Your task to perform on an android device: toggle translation in the chrome app Image 0: 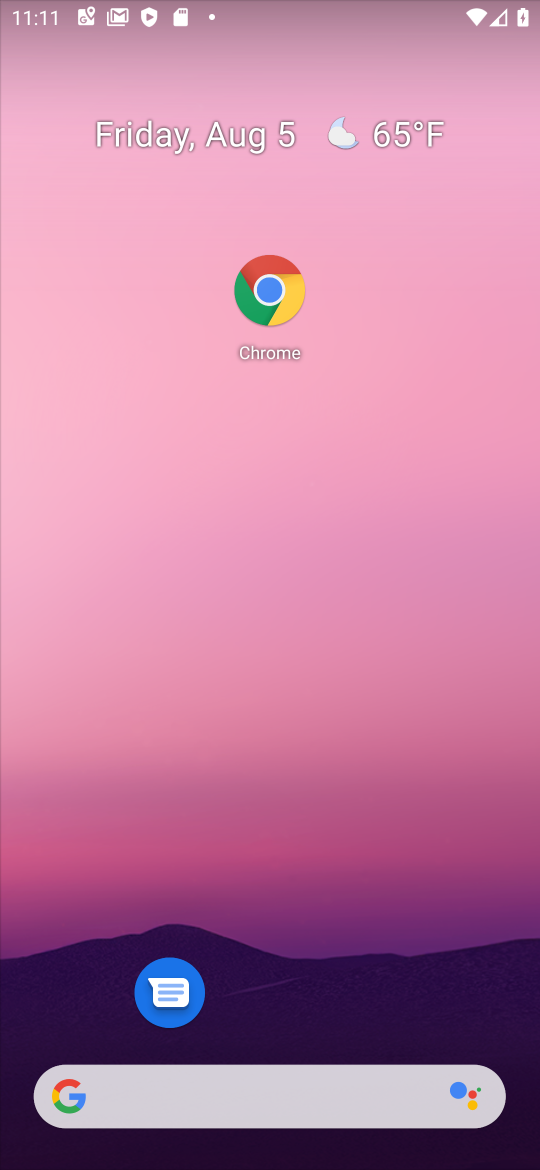
Step 0: drag from (113, 863) to (29, 37)
Your task to perform on an android device: toggle translation in the chrome app Image 1: 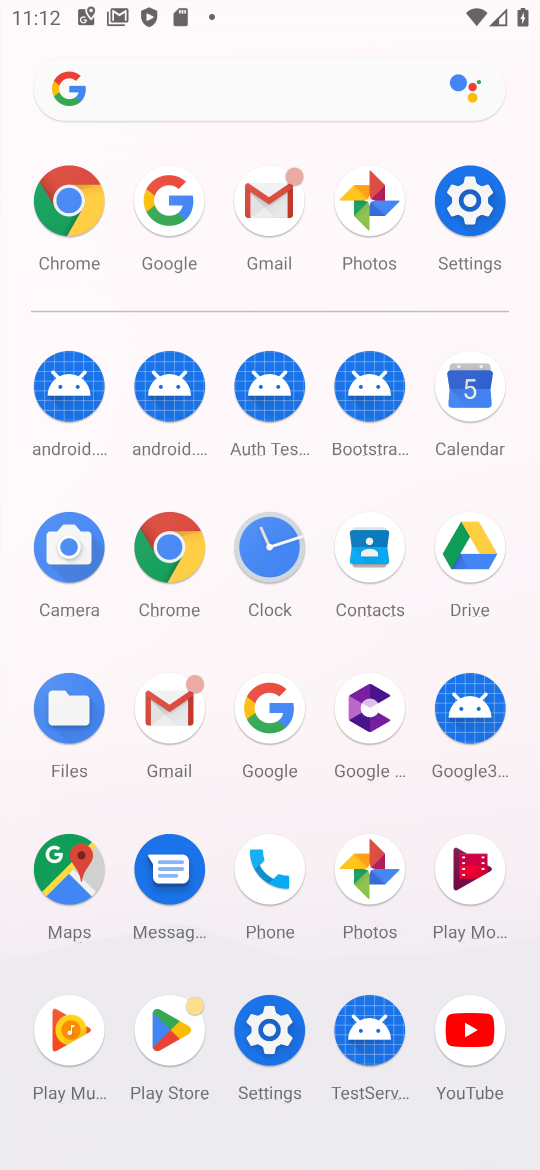
Step 1: click (57, 212)
Your task to perform on an android device: toggle translation in the chrome app Image 2: 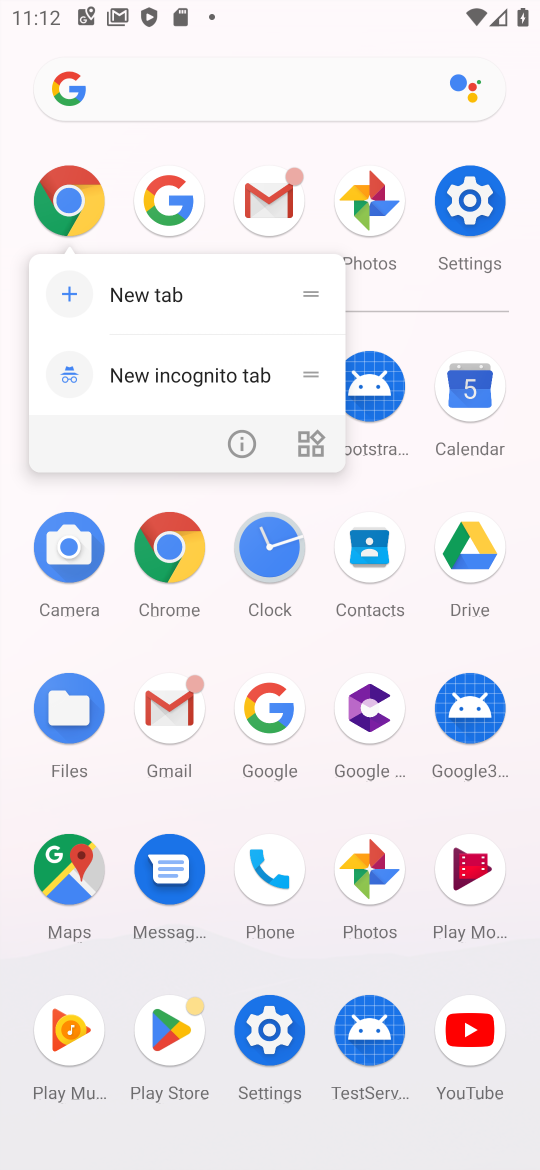
Step 2: click (53, 209)
Your task to perform on an android device: toggle translation in the chrome app Image 3: 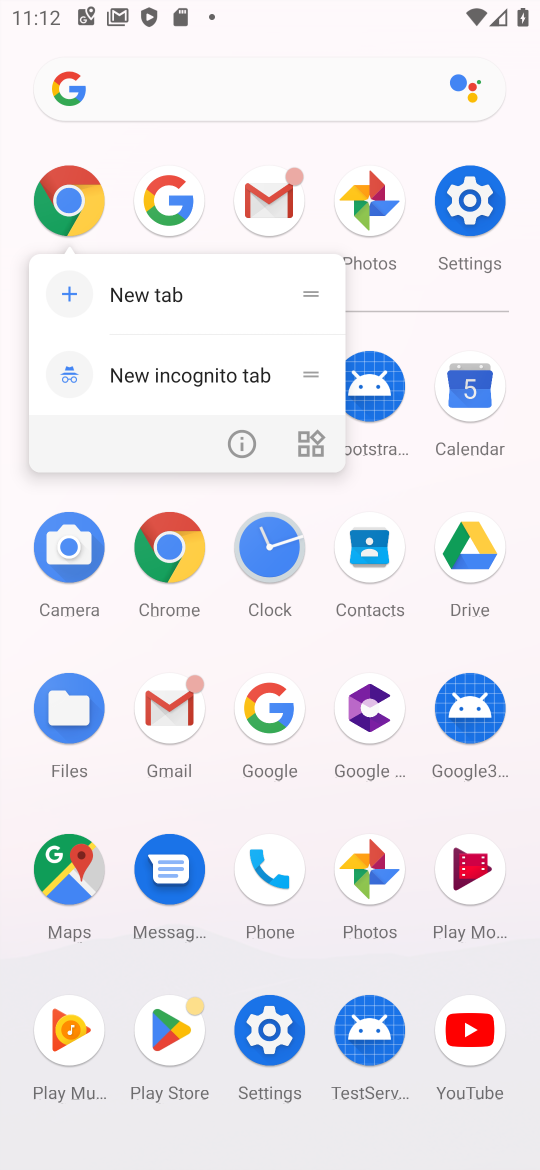
Step 3: click (53, 209)
Your task to perform on an android device: toggle translation in the chrome app Image 4: 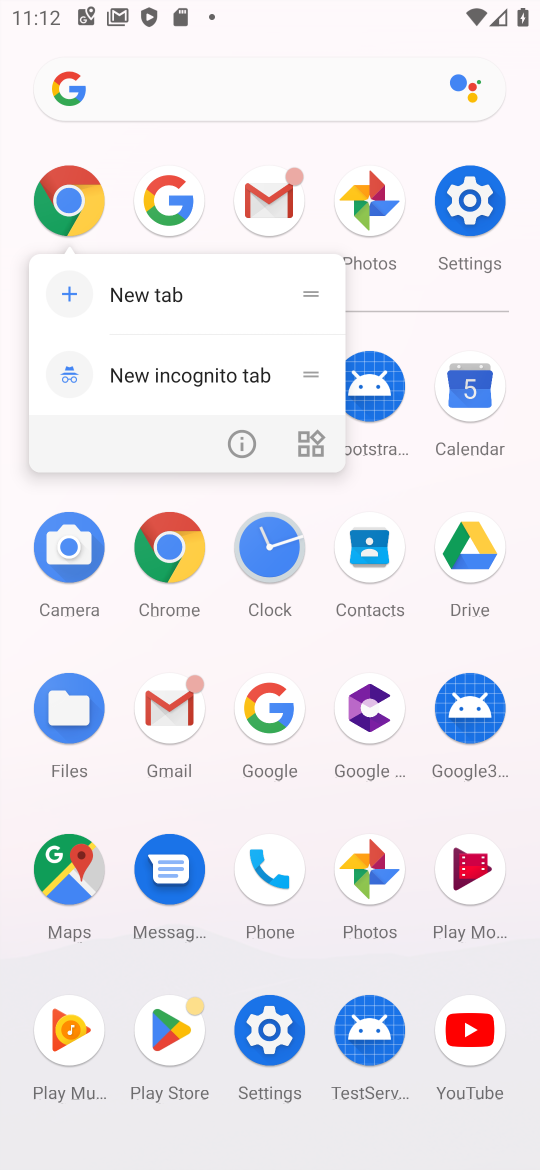
Step 4: click (53, 209)
Your task to perform on an android device: toggle translation in the chrome app Image 5: 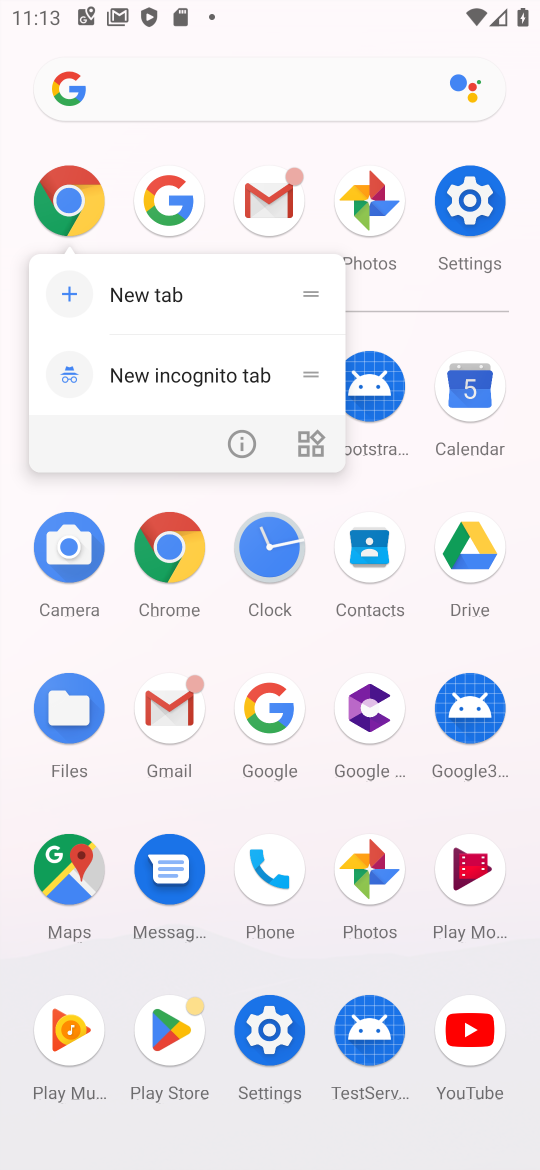
Step 5: click (51, 209)
Your task to perform on an android device: toggle translation in the chrome app Image 6: 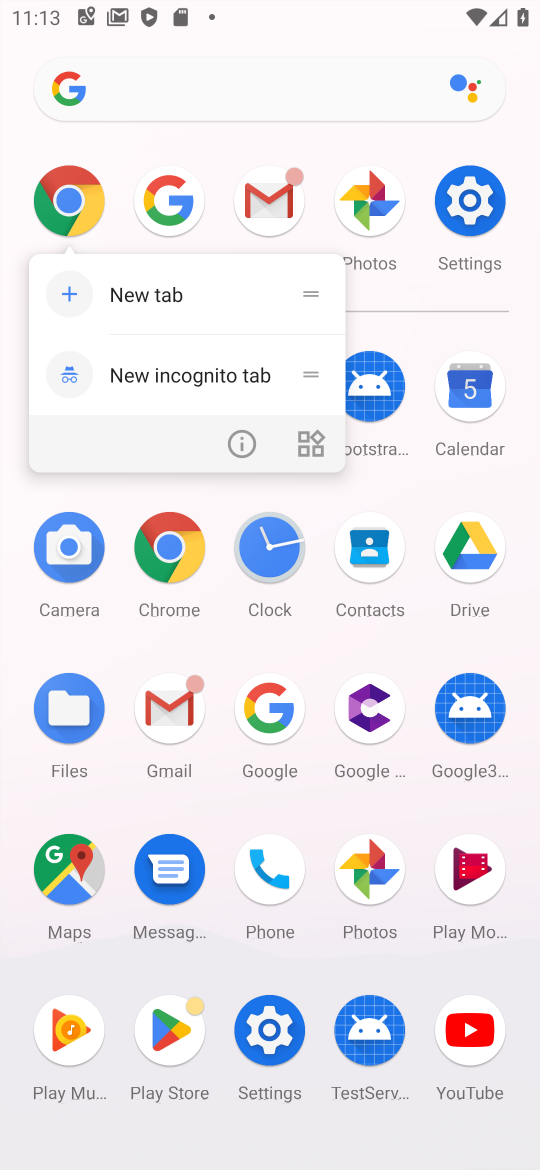
Step 6: click (51, 209)
Your task to perform on an android device: toggle translation in the chrome app Image 7: 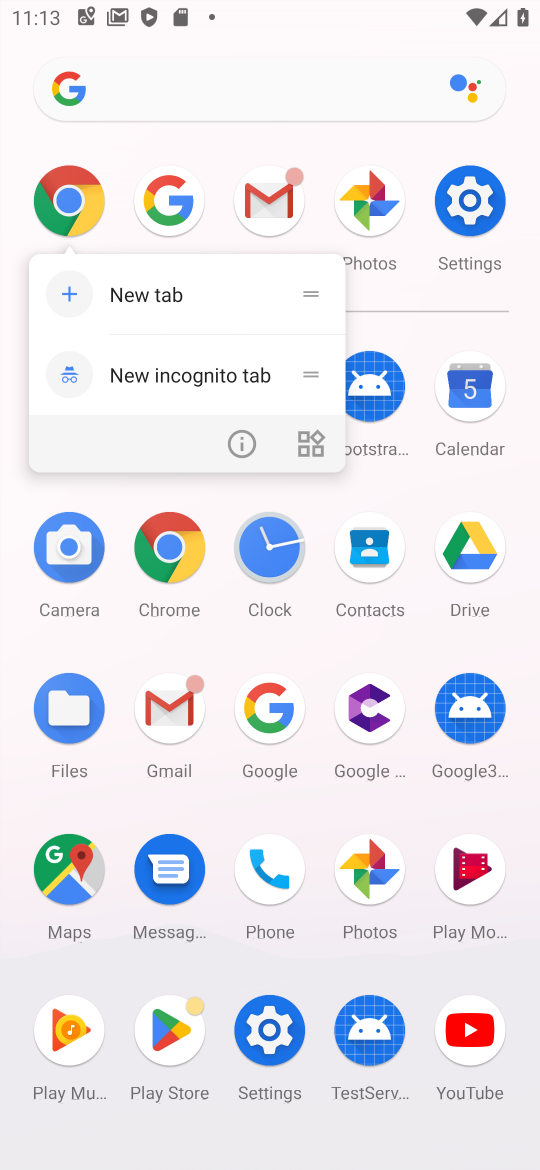
Step 7: click (51, 208)
Your task to perform on an android device: toggle translation in the chrome app Image 8: 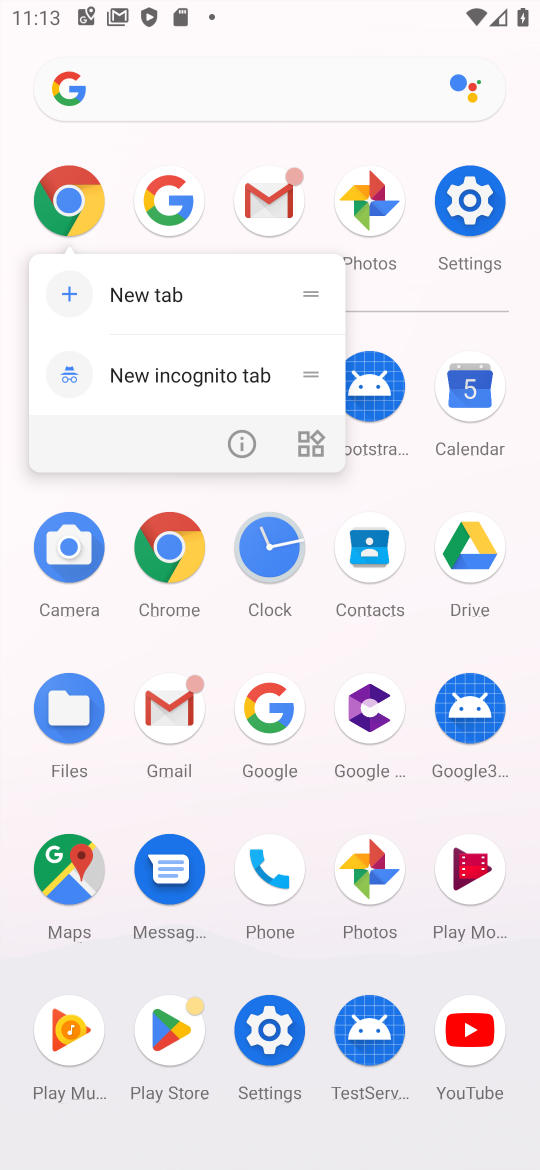
Step 8: click (40, 192)
Your task to perform on an android device: toggle translation in the chrome app Image 9: 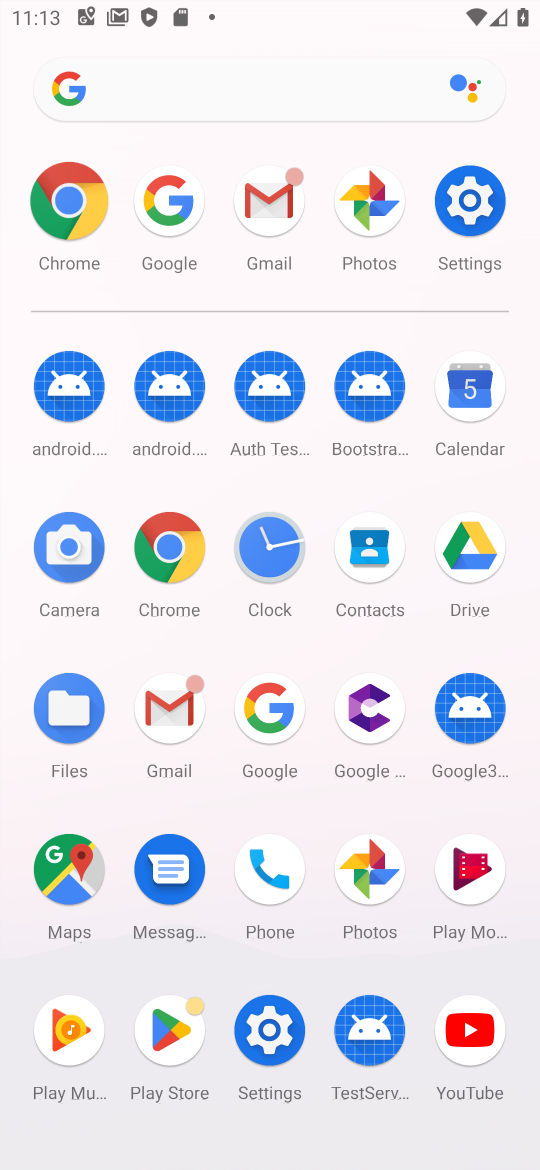
Step 9: click (61, 208)
Your task to perform on an android device: toggle translation in the chrome app Image 10: 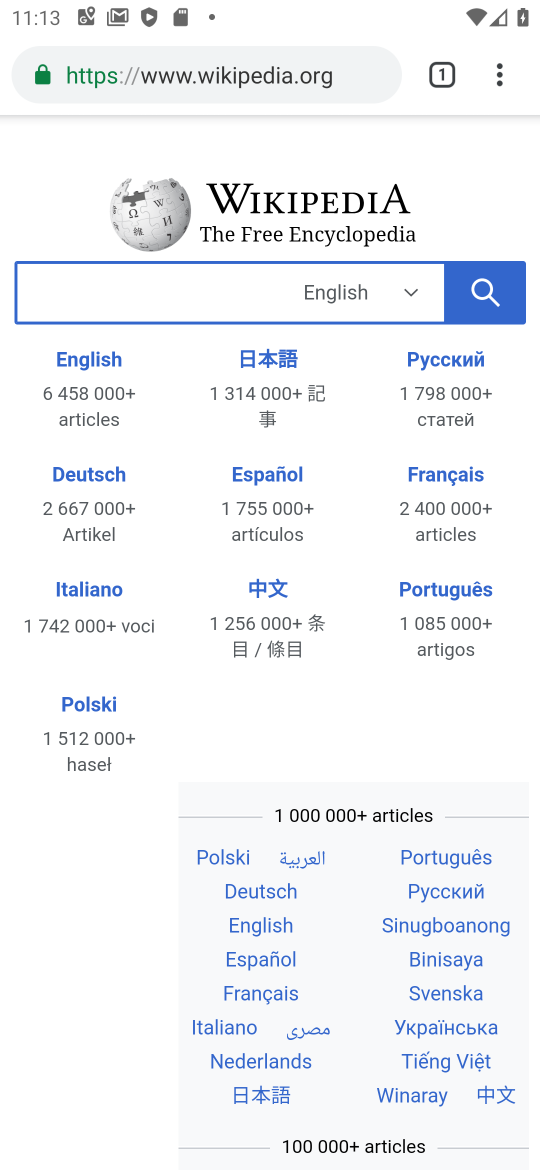
Step 10: drag from (479, 85) to (226, 926)
Your task to perform on an android device: toggle translation in the chrome app Image 11: 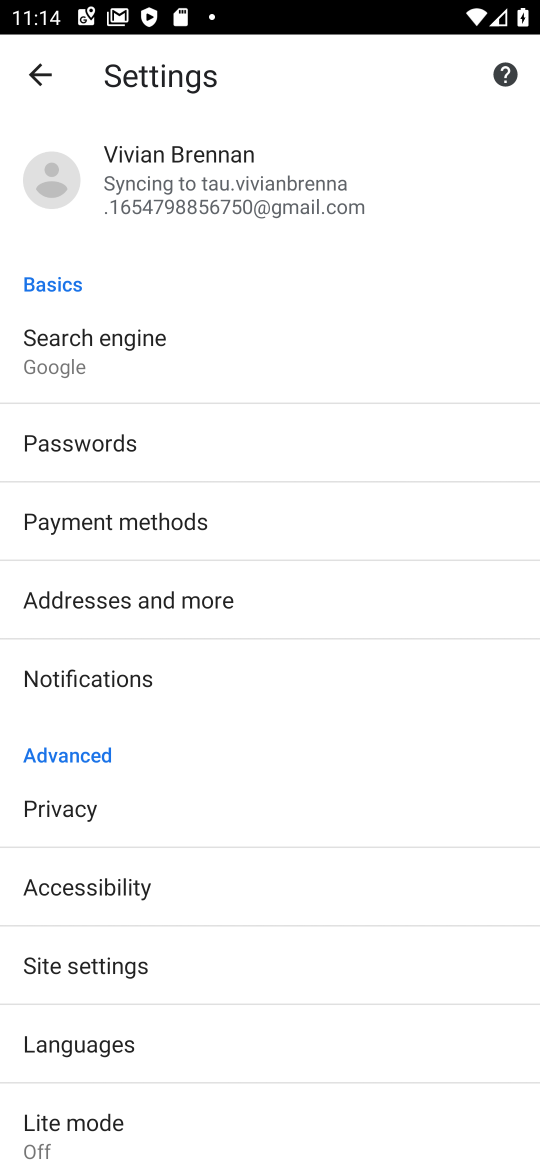
Step 11: drag from (115, 1072) to (205, 717)
Your task to perform on an android device: toggle translation in the chrome app Image 12: 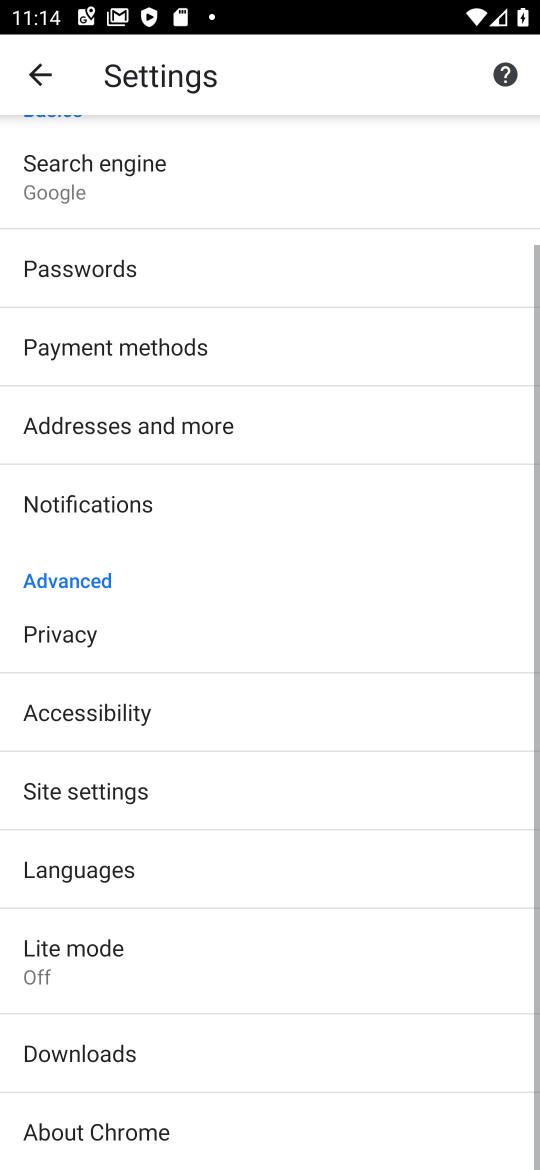
Step 12: click (77, 886)
Your task to perform on an android device: toggle translation in the chrome app Image 13: 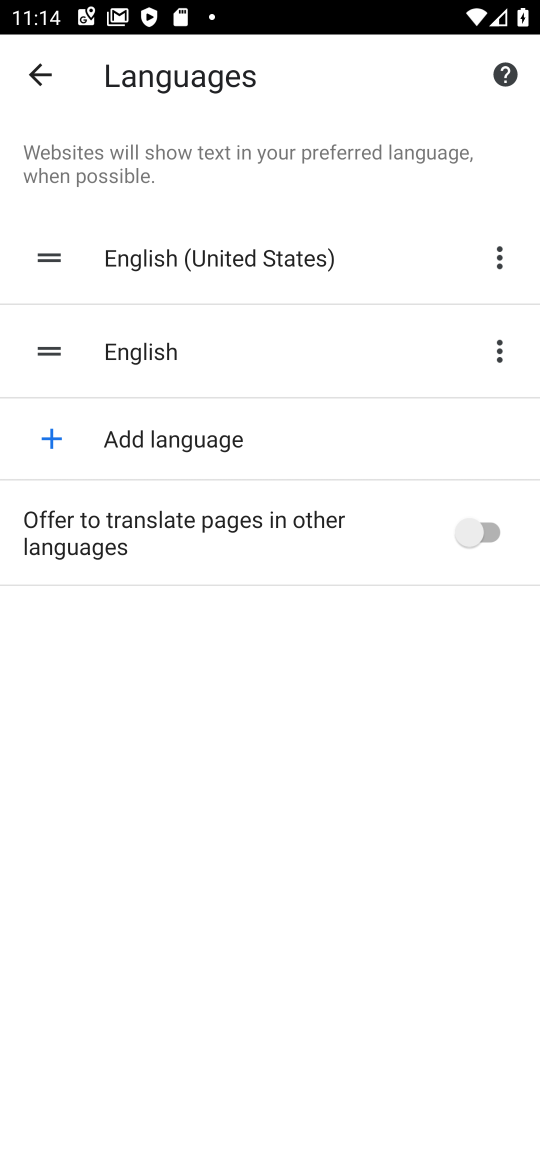
Step 13: click (451, 540)
Your task to perform on an android device: toggle translation in the chrome app Image 14: 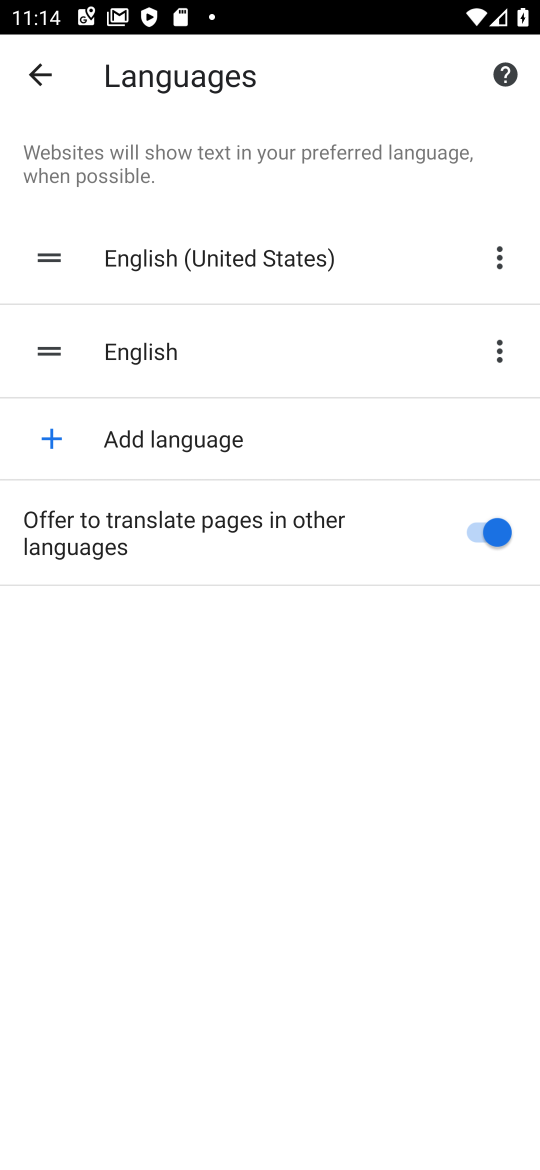
Step 14: task complete